Your task to perform on an android device: clear all cookies in the chrome app Image 0: 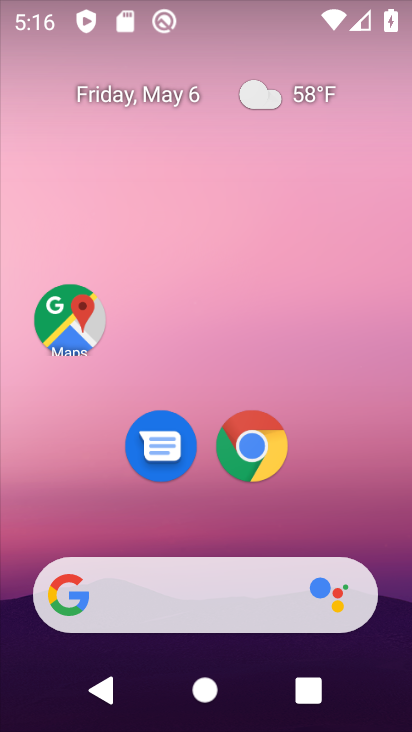
Step 0: click (254, 443)
Your task to perform on an android device: clear all cookies in the chrome app Image 1: 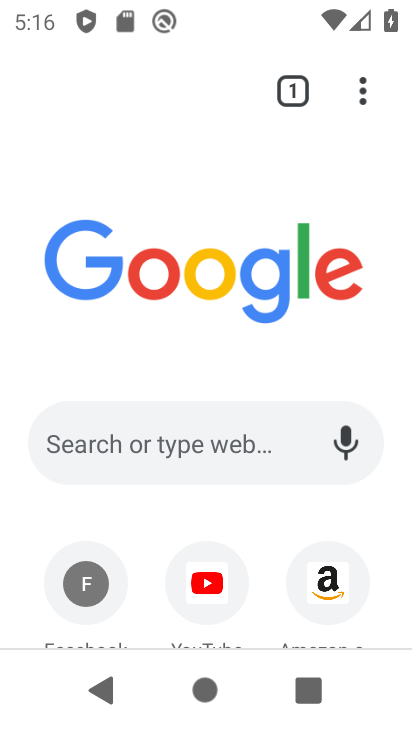
Step 1: click (363, 90)
Your task to perform on an android device: clear all cookies in the chrome app Image 2: 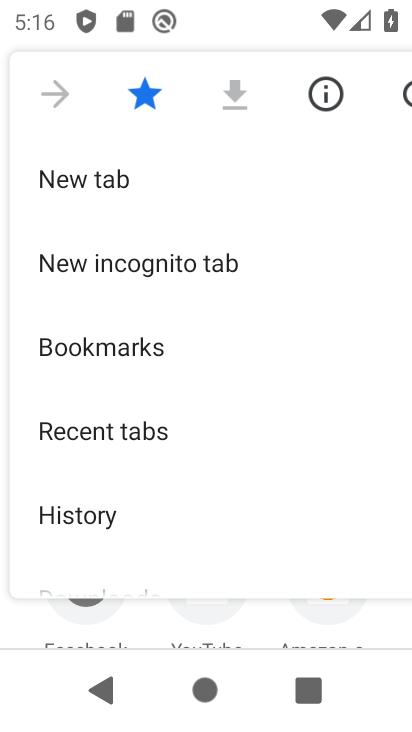
Step 2: drag from (219, 439) to (151, 47)
Your task to perform on an android device: clear all cookies in the chrome app Image 3: 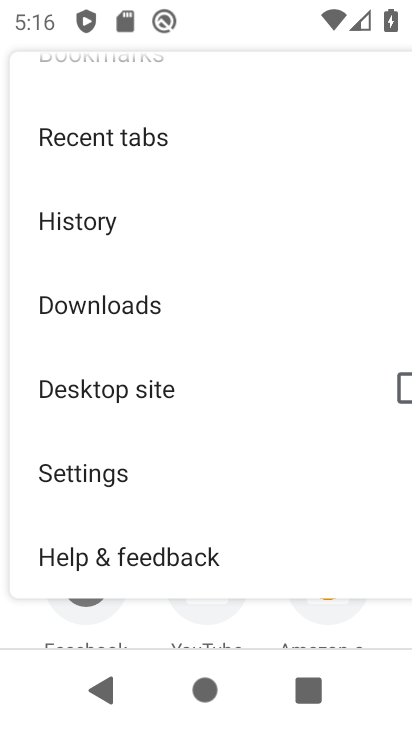
Step 3: click (91, 467)
Your task to perform on an android device: clear all cookies in the chrome app Image 4: 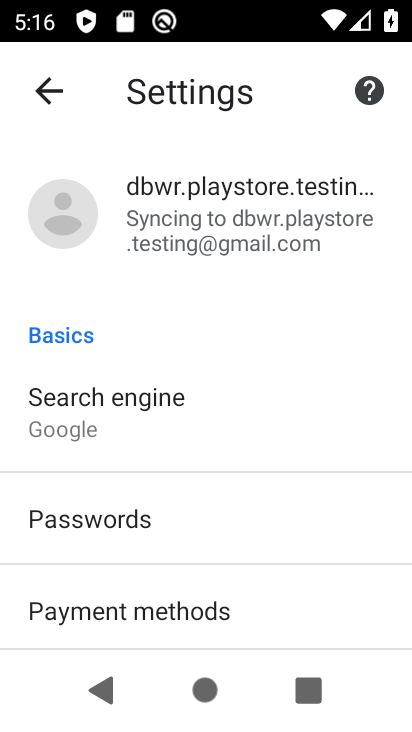
Step 4: drag from (227, 479) to (205, 198)
Your task to perform on an android device: clear all cookies in the chrome app Image 5: 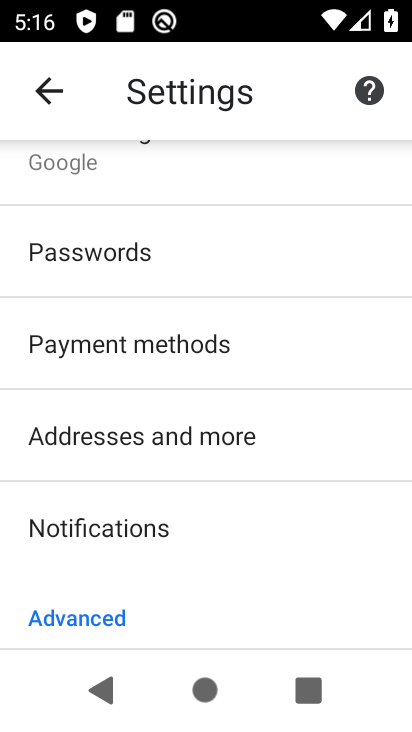
Step 5: drag from (264, 514) to (251, 280)
Your task to perform on an android device: clear all cookies in the chrome app Image 6: 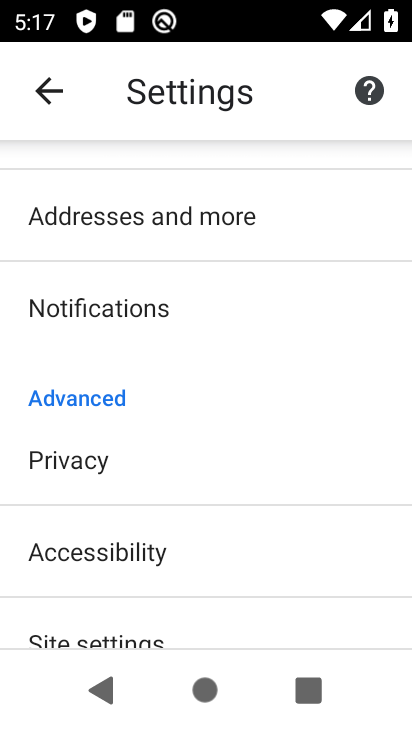
Step 6: click (75, 456)
Your task to perform on an android device: clear all cookies in the chrome app Image 7: 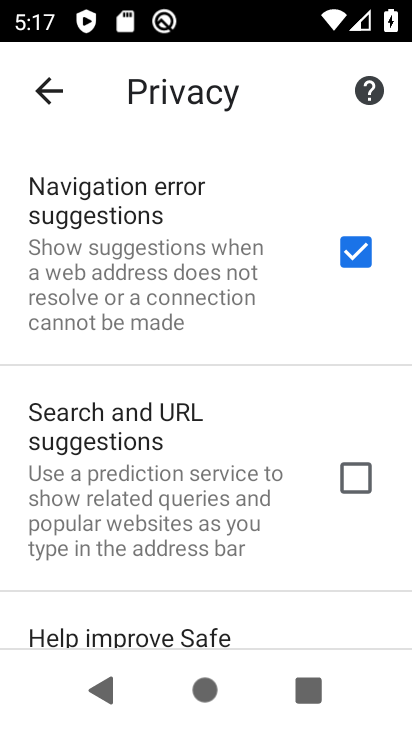
Step 7: drag from (253, 568) to (240, 300)
Your task to perform on an android device: clear all cookies in the chrome app Image 8: 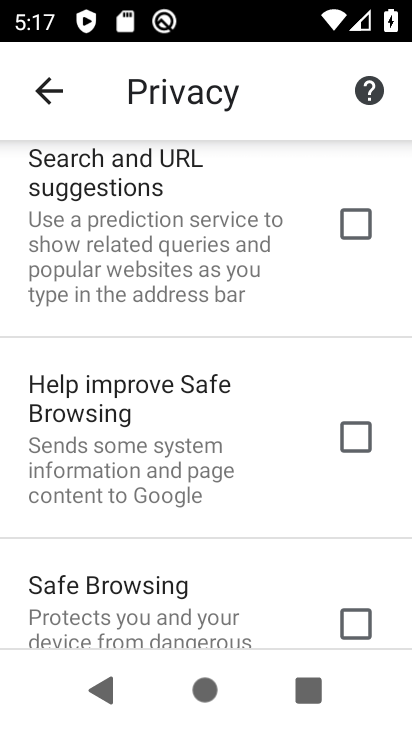
Step 8: drag from (243, 546) to (226, 237)
Your task to perform on an android device: clear all cookies in the chrome app Image 9: 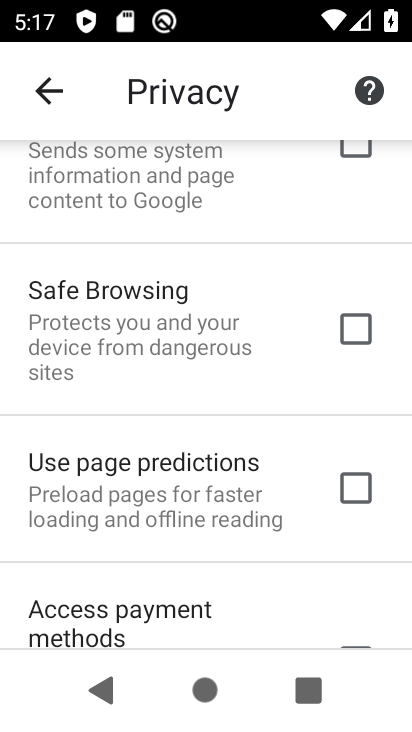
Step 9: drag from (279, 559) to (257, 171)
Your task to perform on an android device: clear all cookies in the chrome app Image 10: 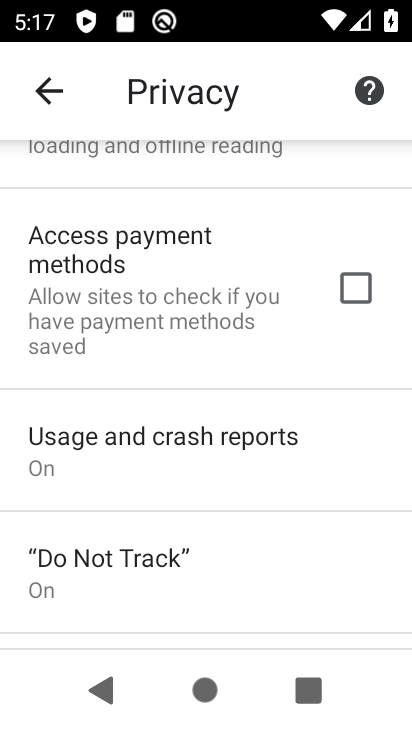
Step 10: drag from (257, 485) to (206, 145)
Your task to perform on an android device: clear all cookies in the chrome app Image 11: 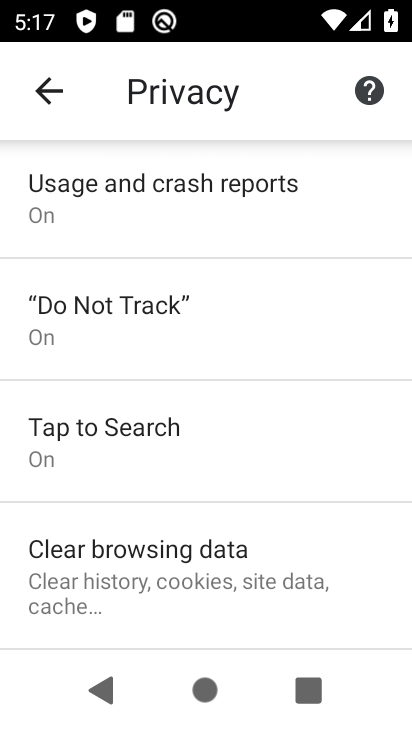
Step 11: drag from (241, 431) to (224, 197)
Your task to perform on an android device: clear all cookies in the chrome app Image 12: 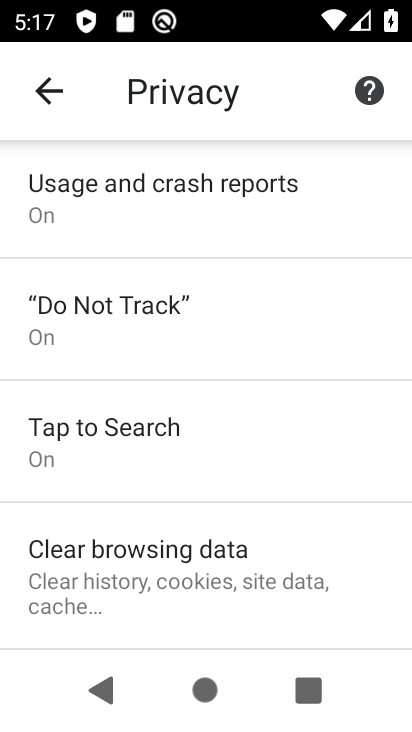
Step 12: click (184, 550)
Your task to perform on an android device: clear all cookies in the chrome app Image 13: 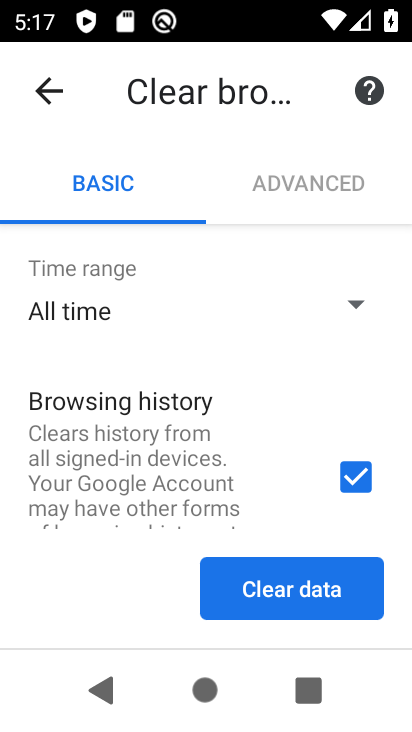
Step 13: click (356, 470)
Your task to perform on an android device: clear all cookies in the chrome app Image 14: 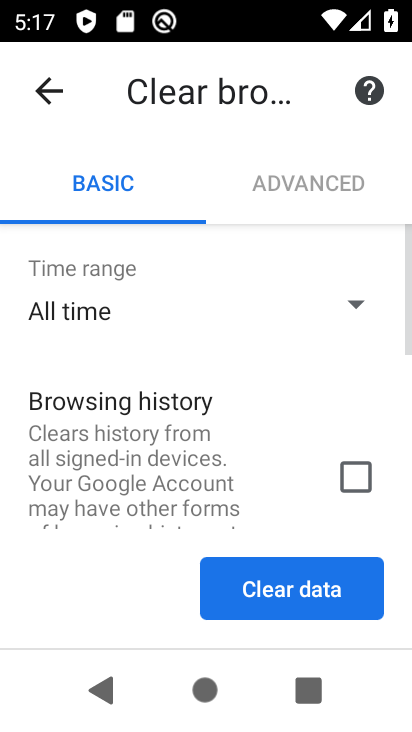
Step 14: drag from (270, 397) to (246, 203)
Your task to perform on an android device: clear all cookies in the chrome app Image 15: 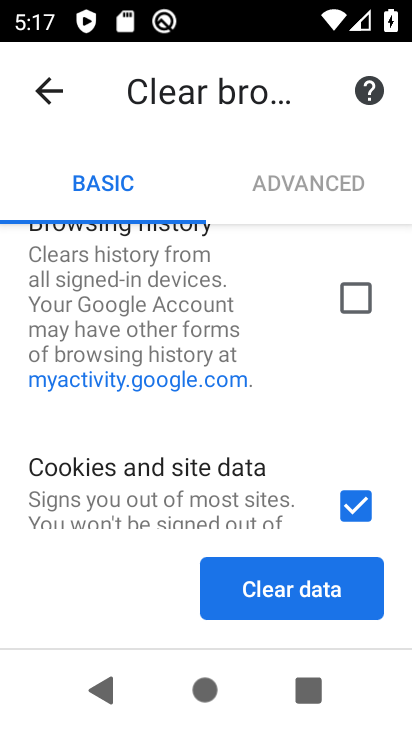
Step 15: drag from (275, 428) to (237, 175)
Your task to perform on an android device: clear all cookies in the chrome app Image 16: 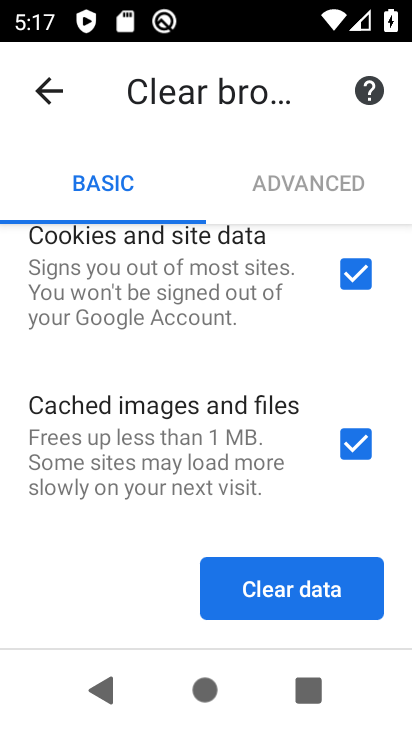
Step 16: click (354, 443)
Your task to perform on an android device: clear all cookies in the chrome app Image 17: 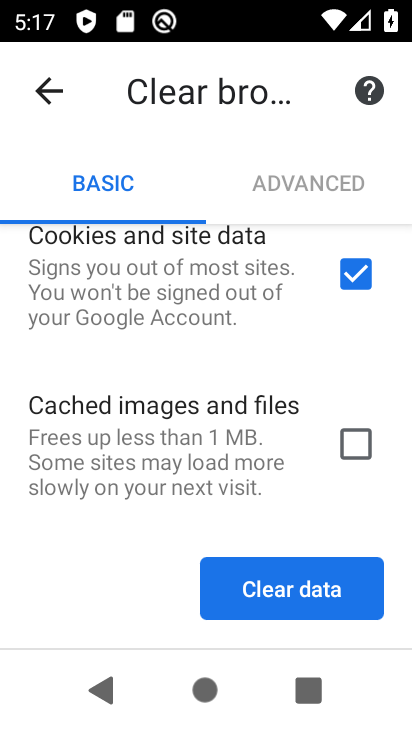
Step 17: click (296, 598)
Your task to perform on an android device: clear all cookies in the chrome app Image 18: 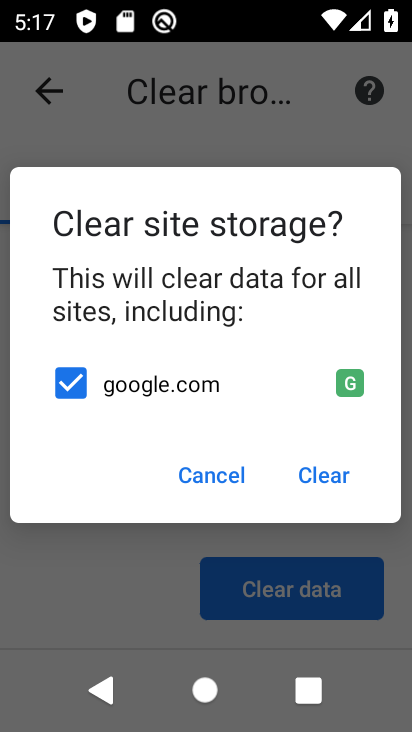
Step 18: click (329, 469)
Your task to perform on an android device: clear all cookies in the chrome app Image 19: 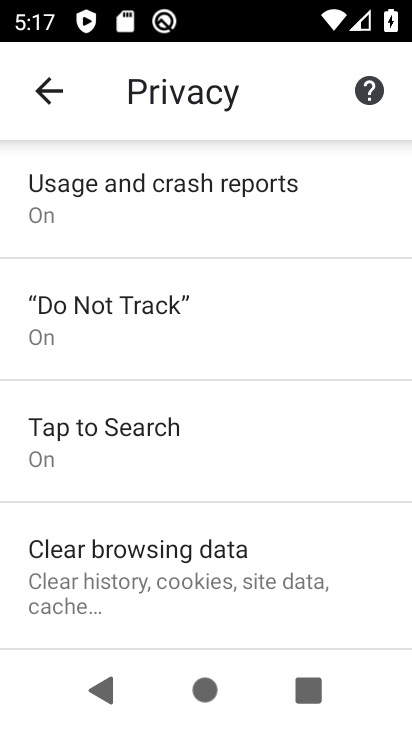
Step 19: task complete